Your task to perform on an android device: How do I get to the nearest electronics store? Image 0: 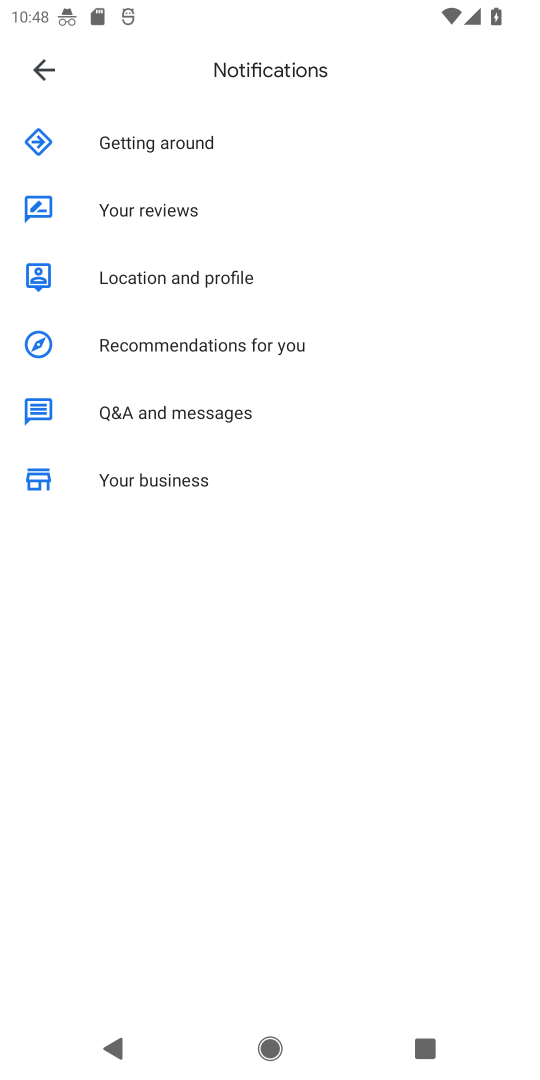
Step 0: press home button
Your task to perform on an android device: How do I get to the nearest electronics store? Image 1: 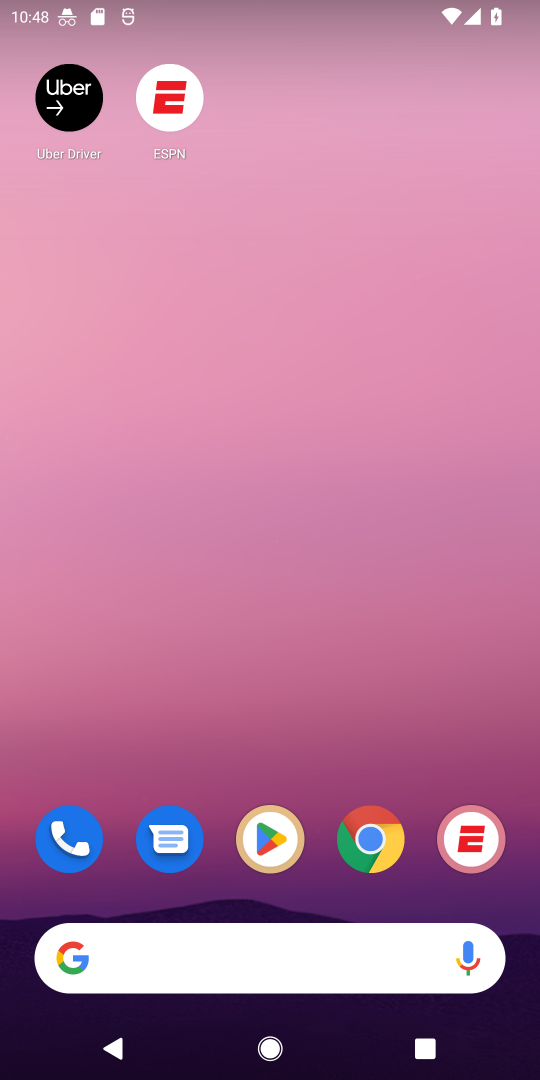
Step 1: drag from (284, 758) to (208, 1)
Your task to perform on an android device: How do I get to the nearest electronics store? Image 2: 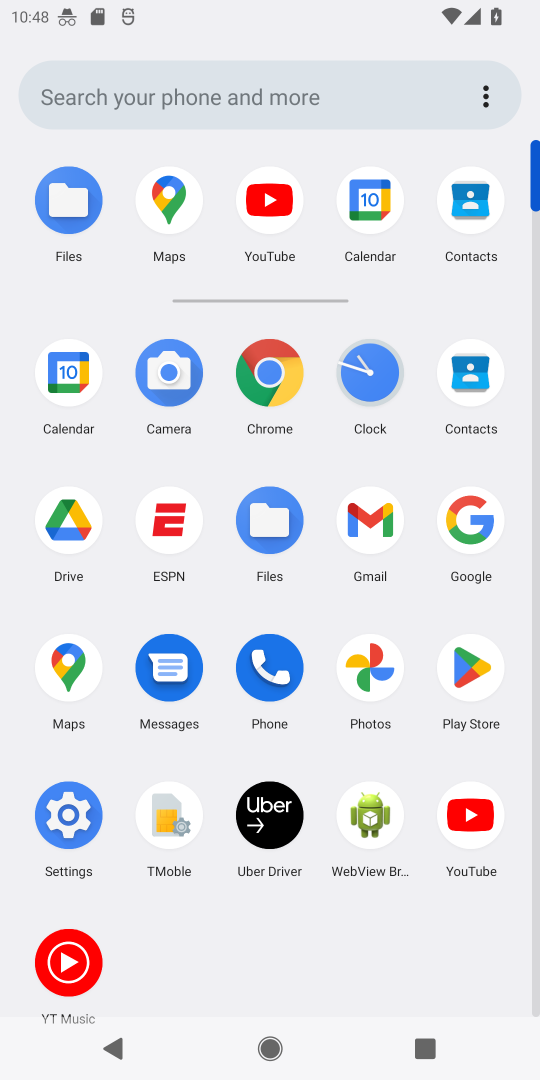
Step 2: click (267, 385)
Your task to perform on an android device: How do I get to the nearest electronics store? Image 3: 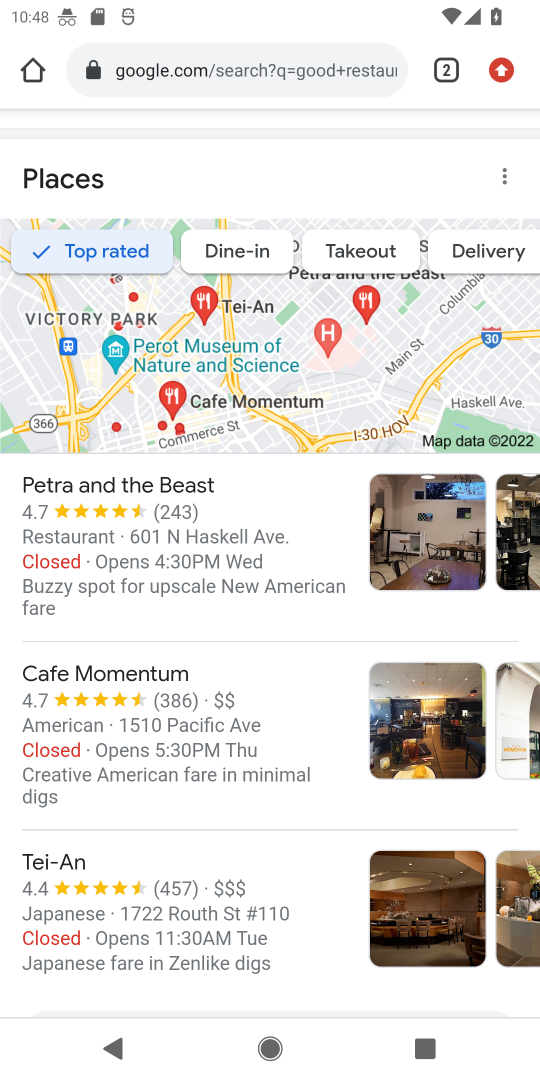
Step 3: click (249, 61)
Your task to perform on an android device: How do I get to the nearest electronics store? Image 4: 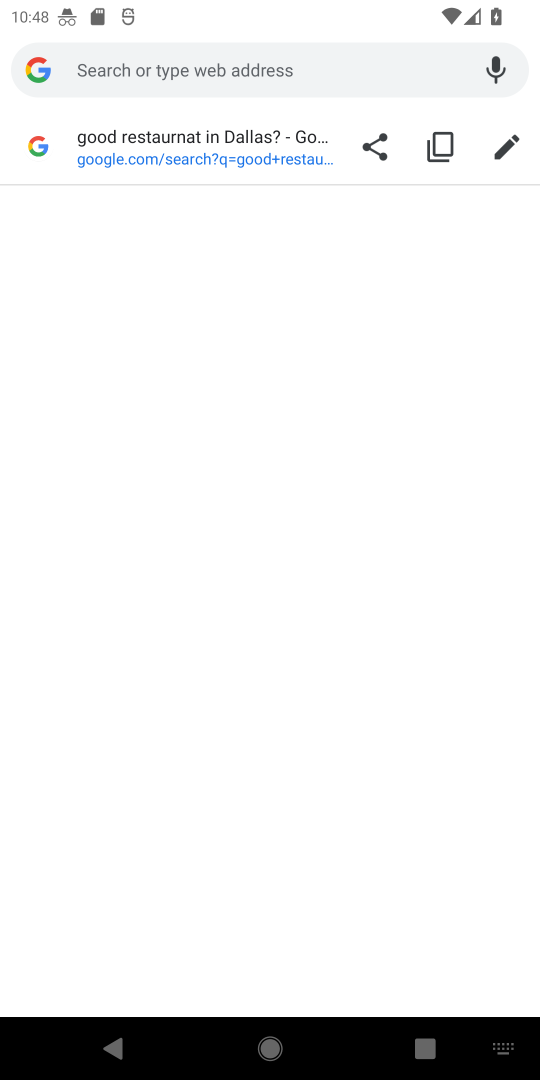
Step 4: type "How do I get to the nearest electronics store?"
Your task to perform on an android device: How do I get to the nearest electronics store? Image 5: 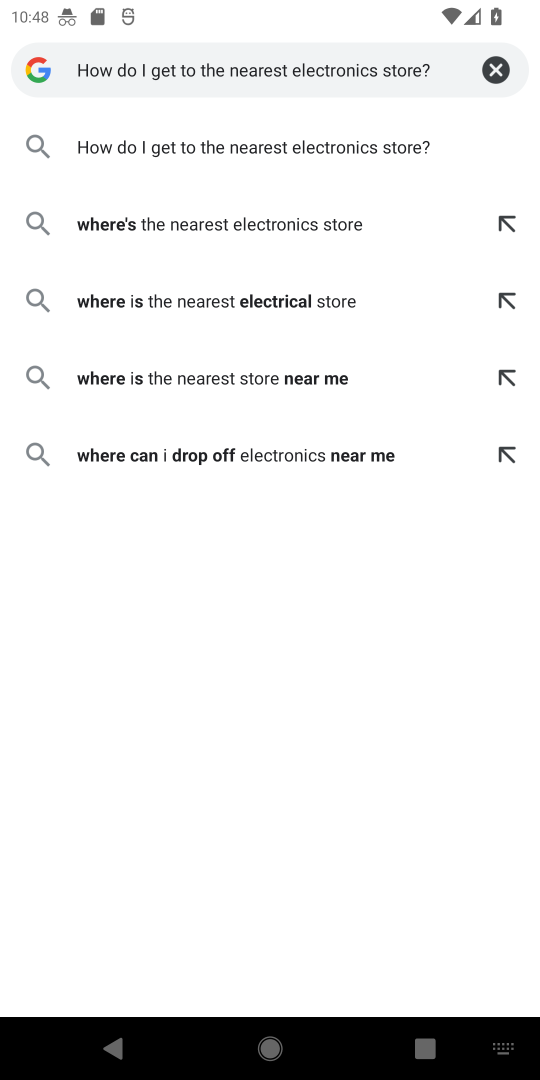
Step 5: press enter
Your task to perform on an android device: How do I get to the nearest electronics store? Image 6: 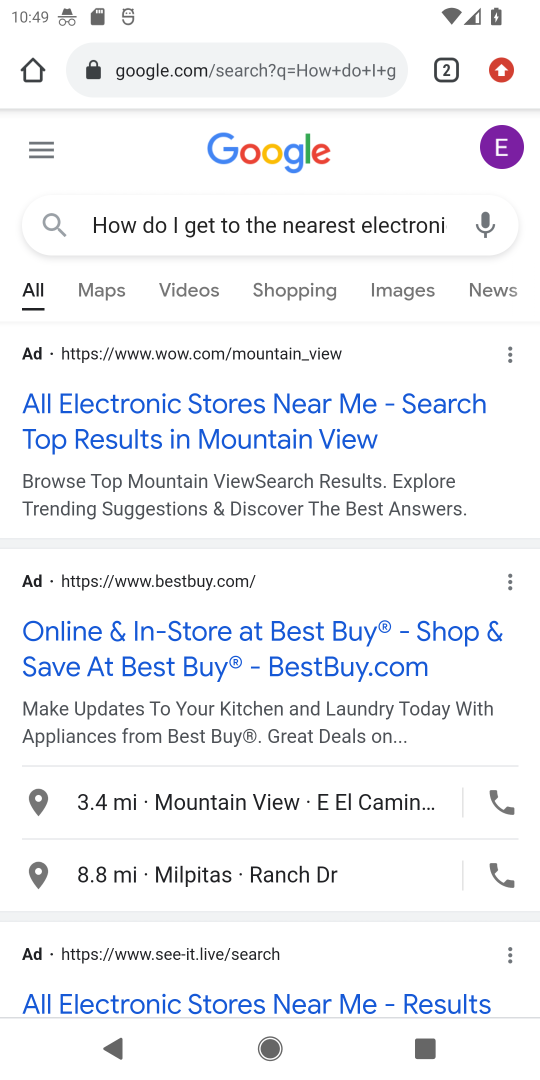
Step 6: task complete